Your task to perform on an android device: Open Chrome and go to settings Image 0: 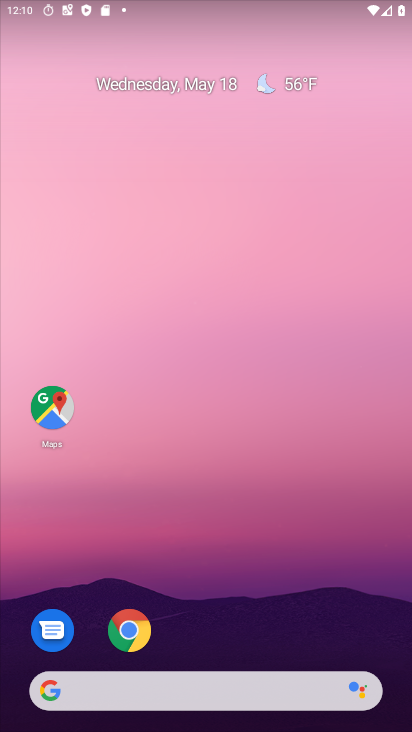
Step 0: click (130, 625)
Your task to perform on an android device: Open Chrome and go to settings Image 1: 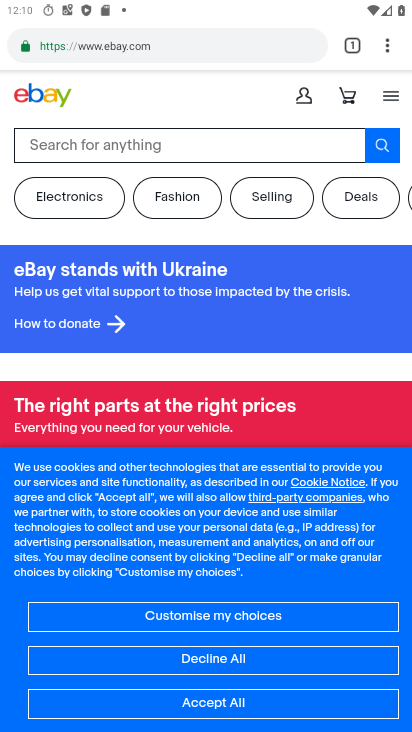
Step 1: click (388, 34)
Your task to perform on an android device: Open Chrome and go to settings Image 2: 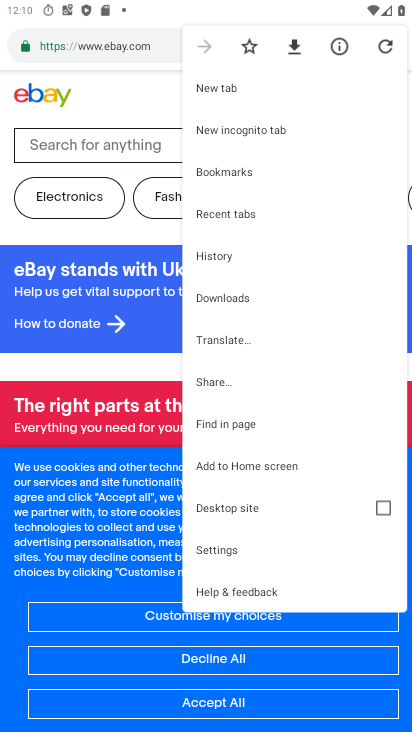
Step 2: click (206, 544)
Your task to perform on an android device: Open Chrome and go to settings Image 3: 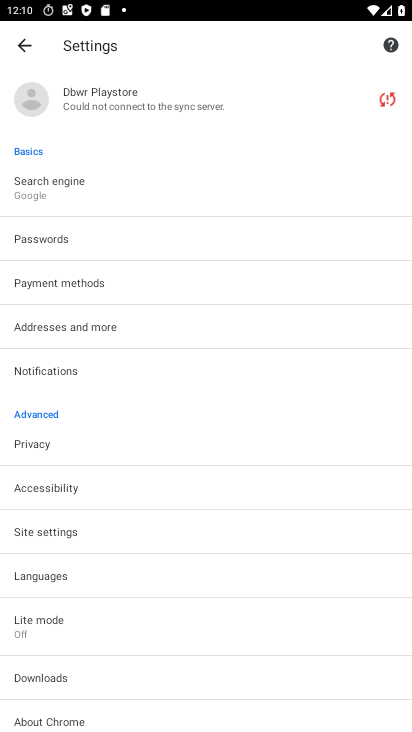
Step 3: task complete